Your task to perform on an android device: Search for the best rated headphones on Amazon. Image 0: 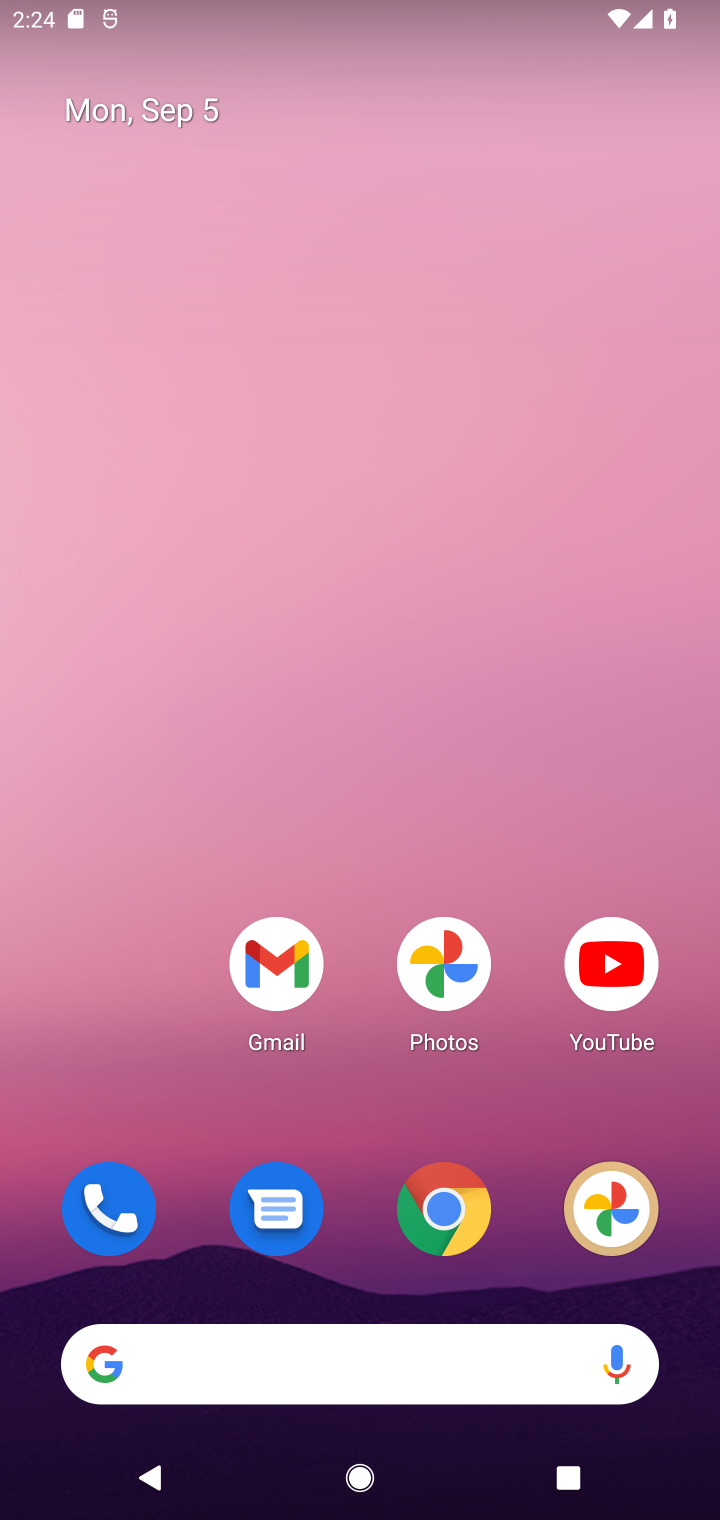
Step 0: click (405, 233)
Your task to perform on an android device: Search for the best rated headphones on Amazon. Image 1: 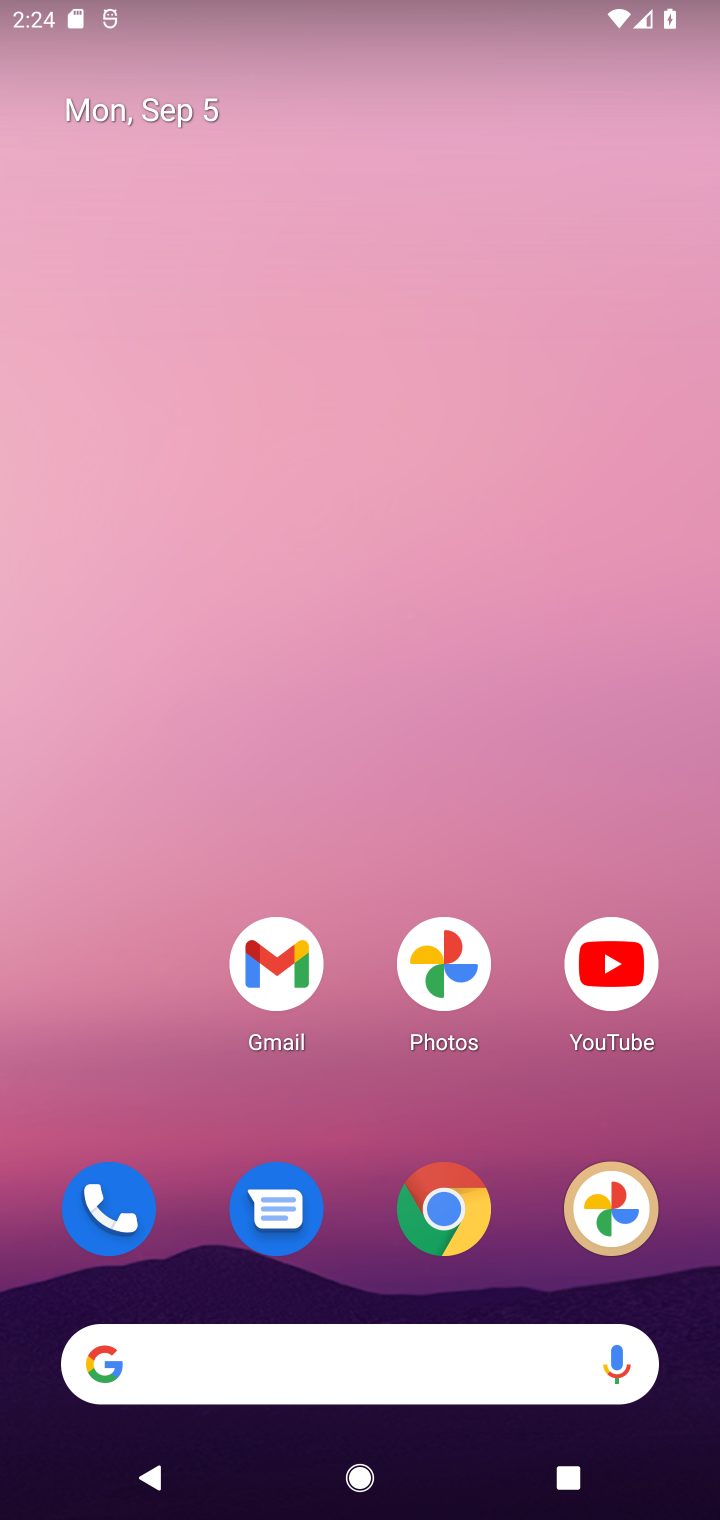
Step 1: drag from (253, 1307) to (390, 319)
Your task to perform on an android device: Search for the best rated headphones on Amazon. Image 2: 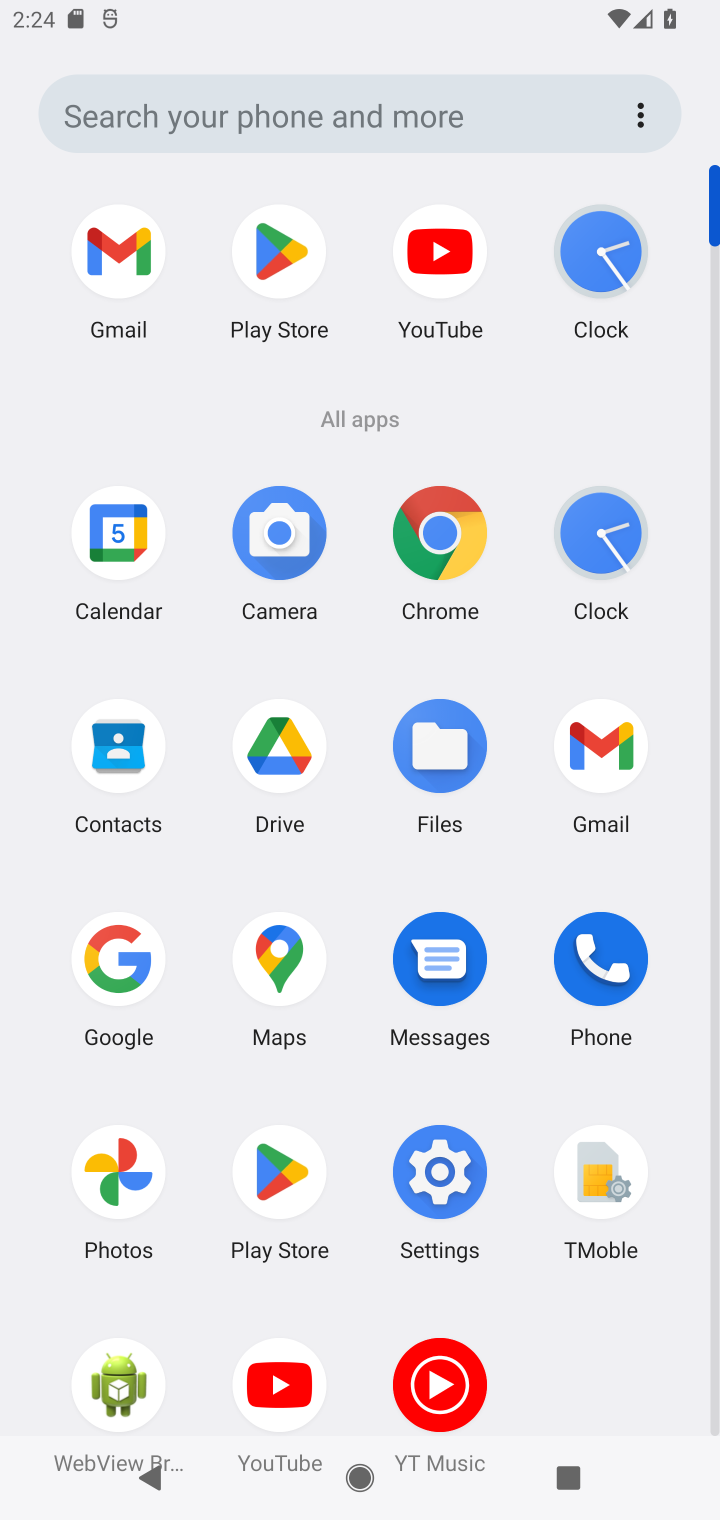
Step 2: click (125, 936)
Your task to perform on an android device: Search for the best rated headphones on Amazon. Image 3: 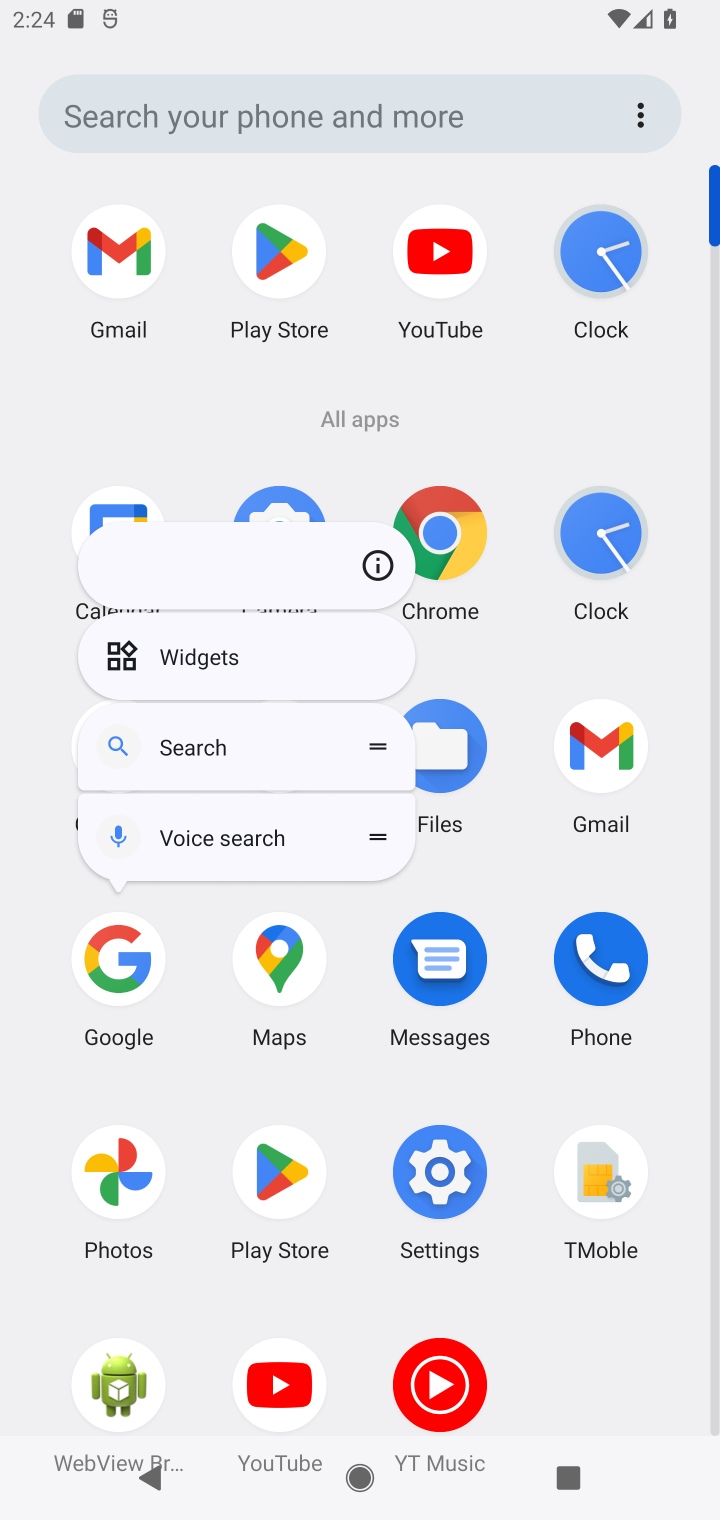
Step 3: click (119, 963)
Your task to perform on an android device: Search for the best rated headphones on Amazon. Image 4: 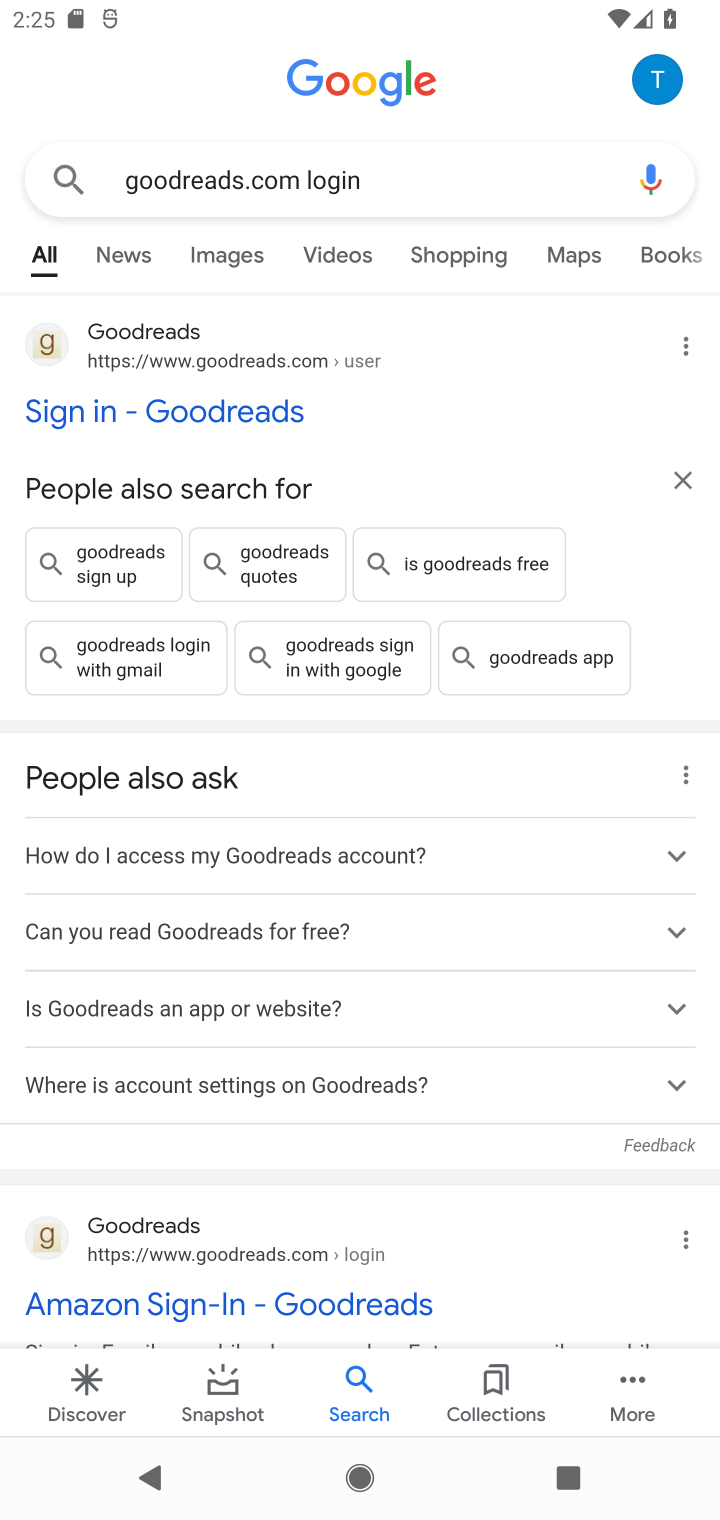
Step 4: click (275, 178)
Your task to perform on an android device: Search for the best rated headphones on Amazon. Image 5: 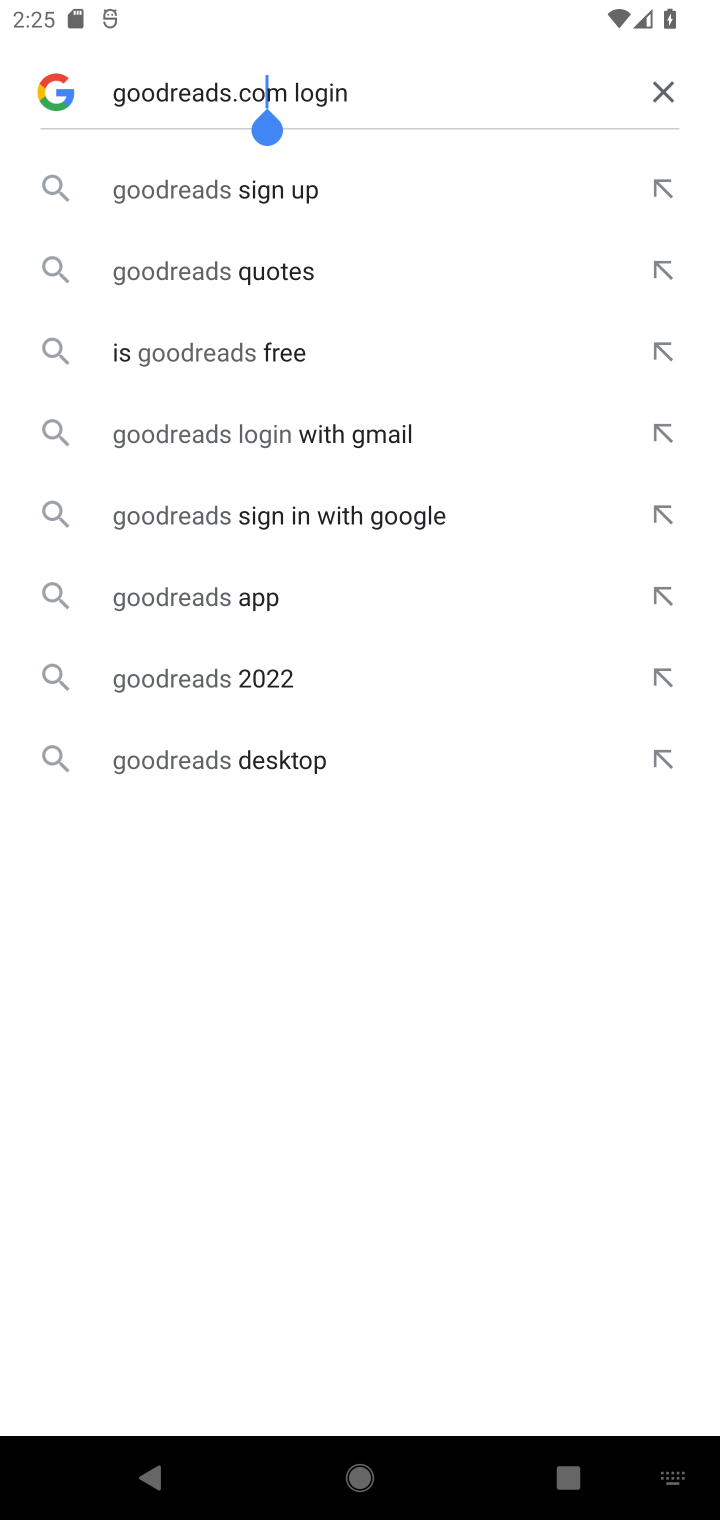
Step 5: click (665, 94)
Your task to perform on an android device: Search for the best rated headphones on Amazon. Image 6: 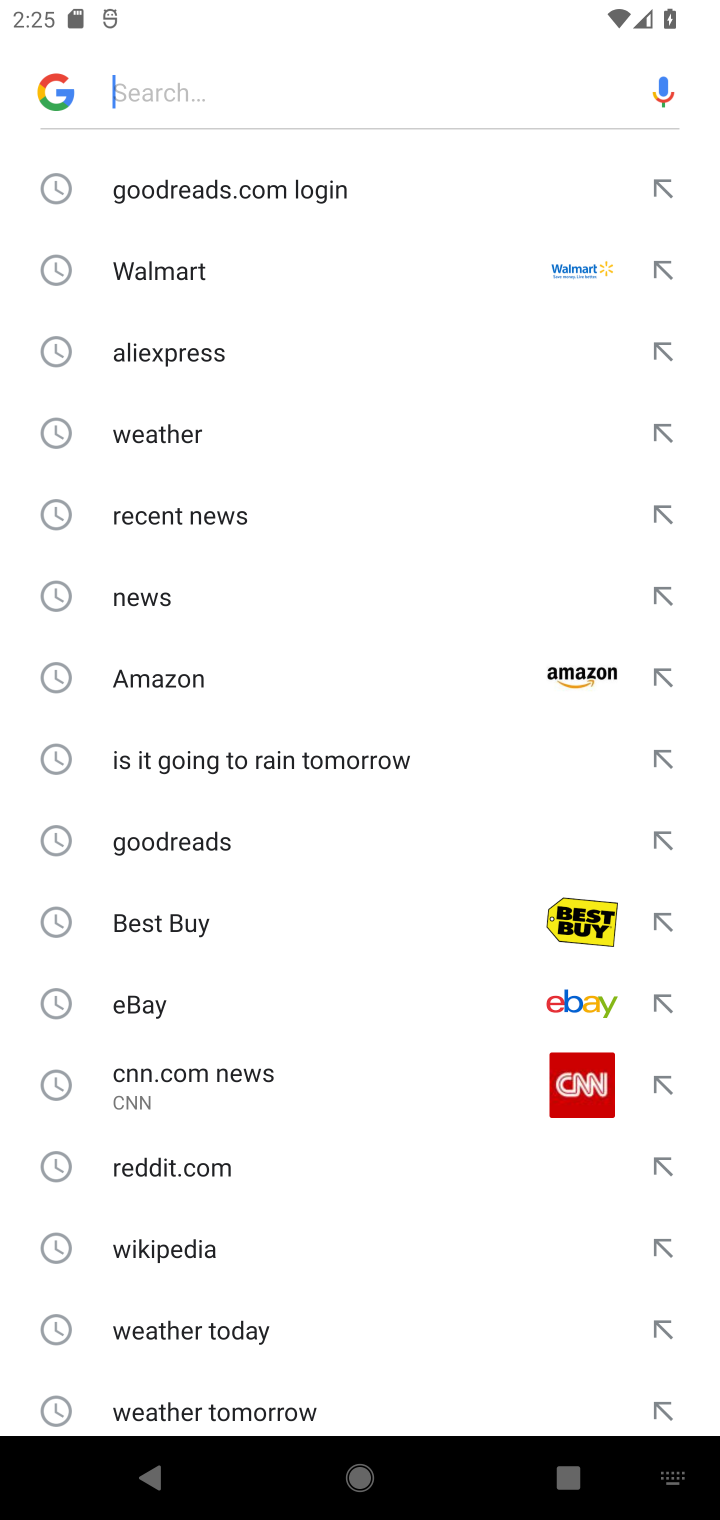
Step 6: type "Amazon"
Your task to perform on an android device: Search for the best rated headphones on Amazon. Image 7: 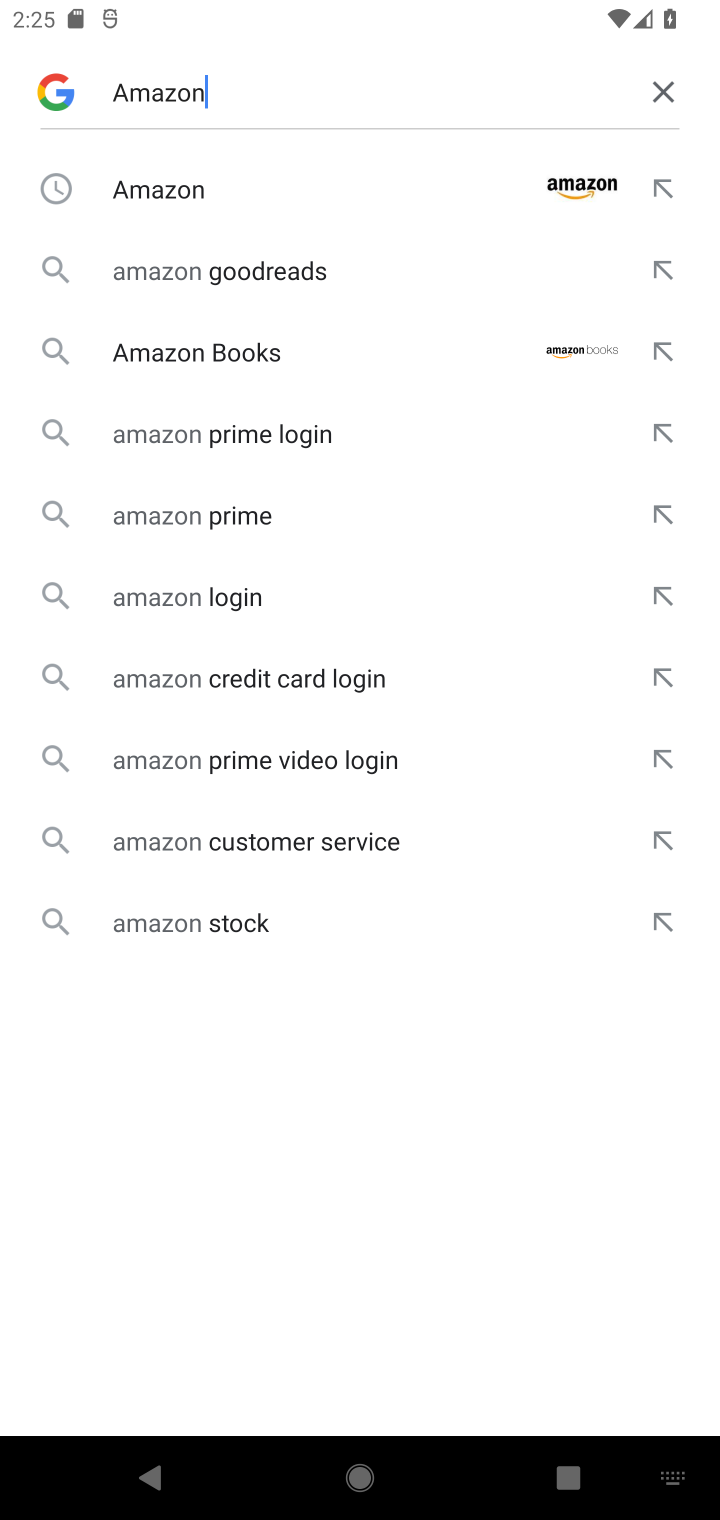
Step 7: click (163, 197)
Your task to perform on an android device: Search for the best rated headphones on Amazon. Image 8: 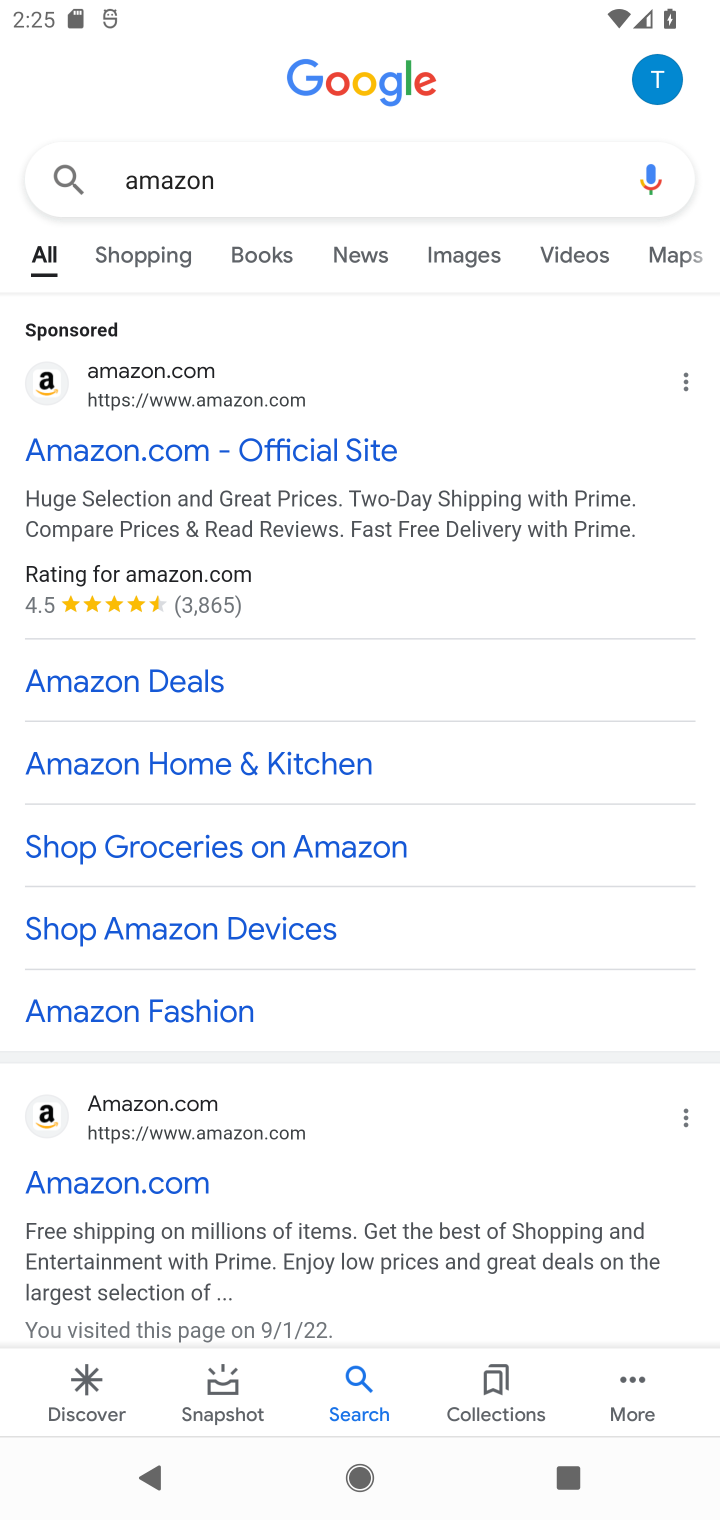
Step 8: click (138, 459)
Your task to perform on an android device: Search for the best rated headphones on Amazon. Image 9: 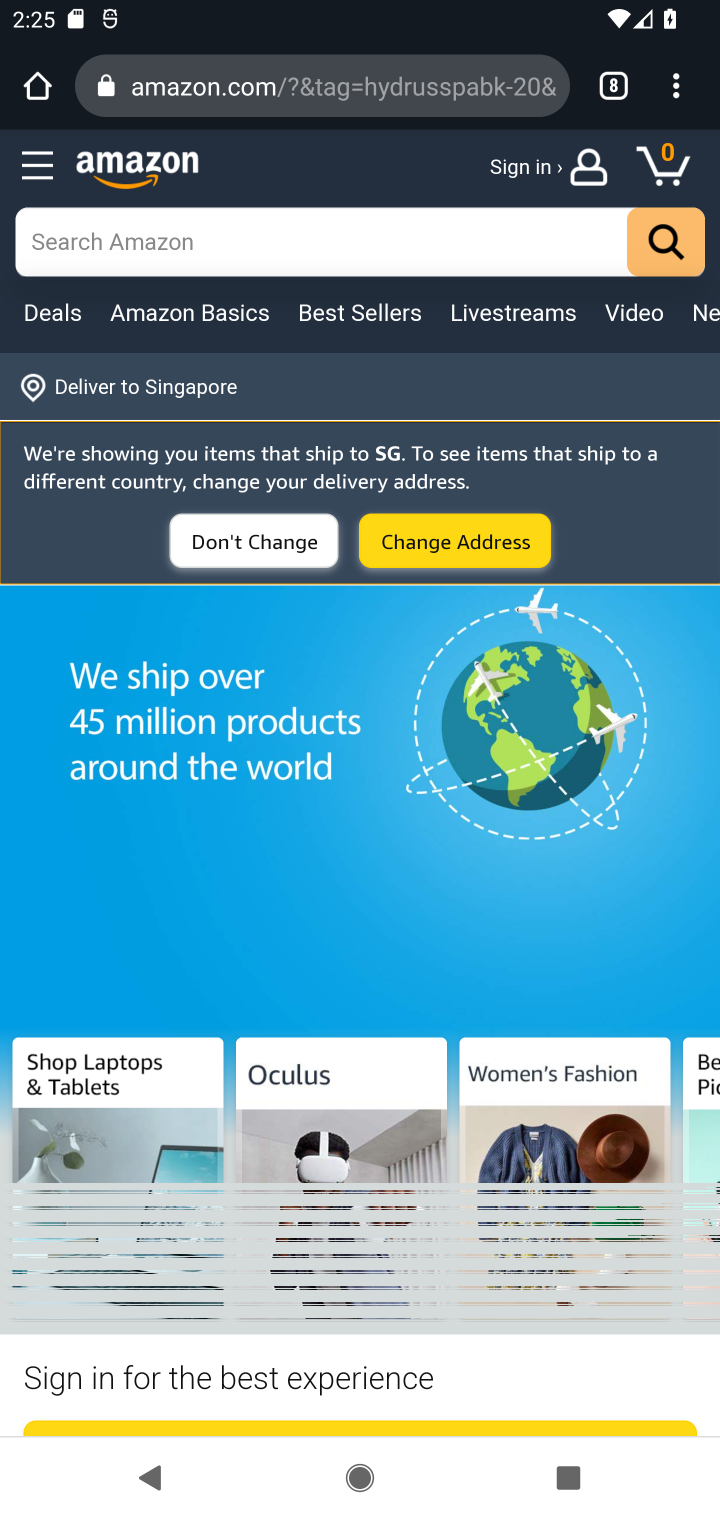
Step 9: click (72, 241)
Your task to perform on an android device: Search for the best rated headphones on Amazon. Image 10: 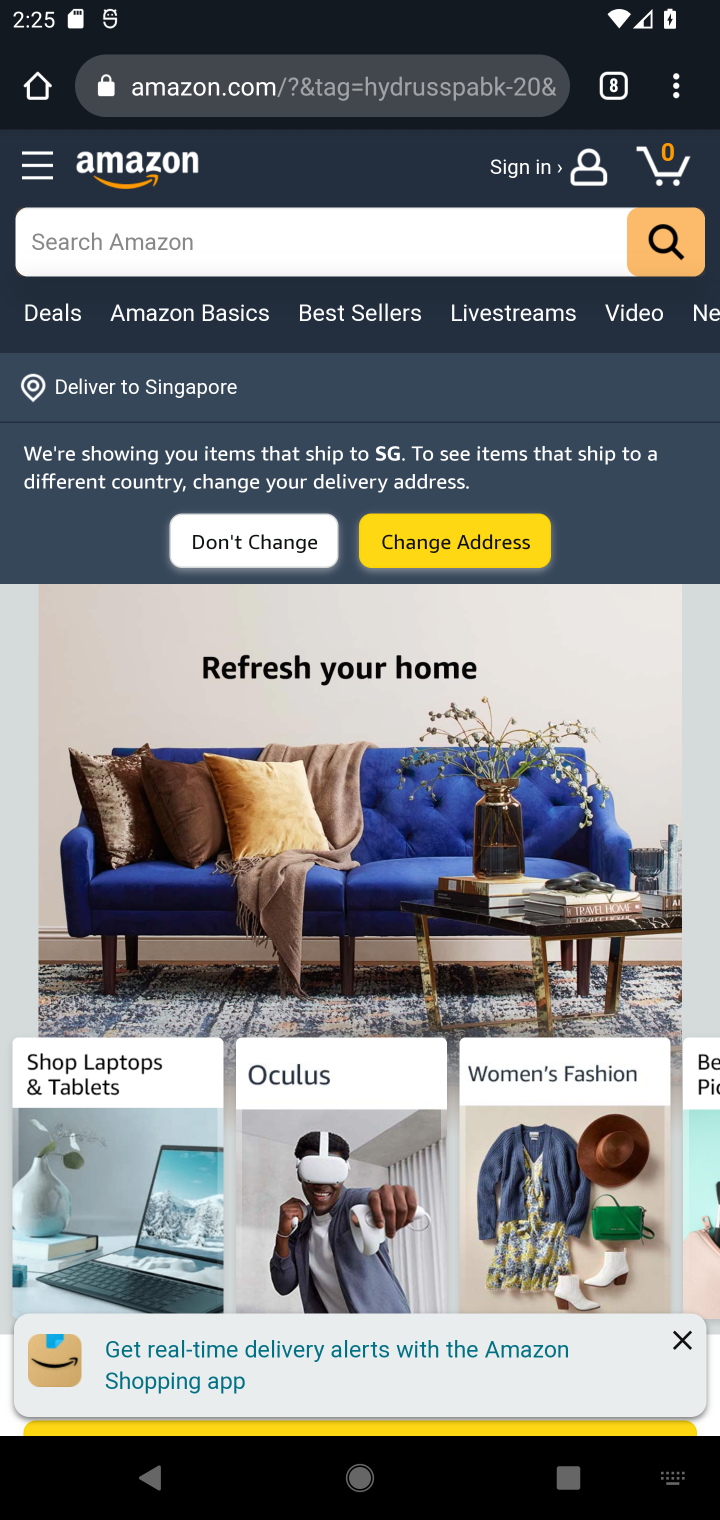
Step 10: type "best rated headphones"
Your task to perform on an android device: Search for the best rated headphones on Amazon. Image 11: 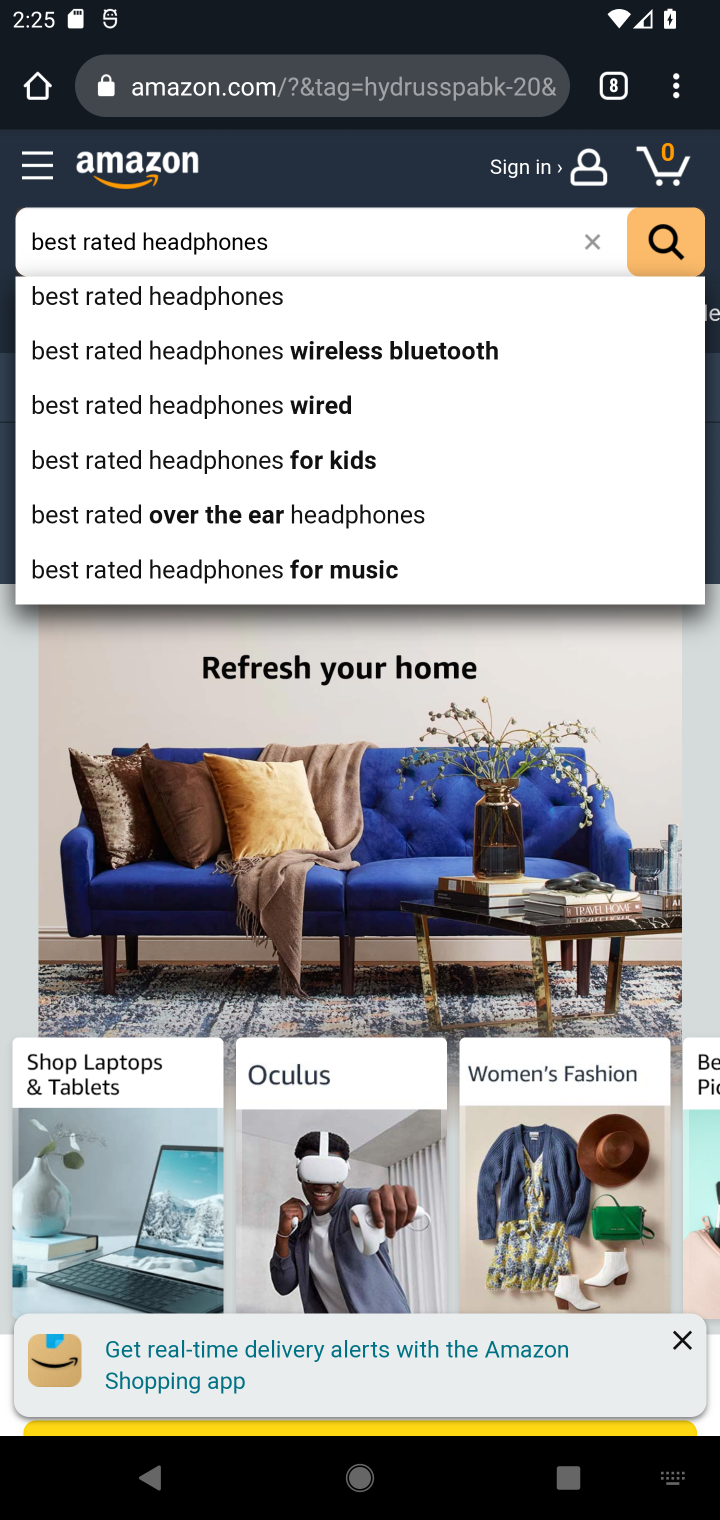
Step 11: click (166, 298)
Your task to perform on an android device: Search for the best rated headphones on Amazon. Image 12: 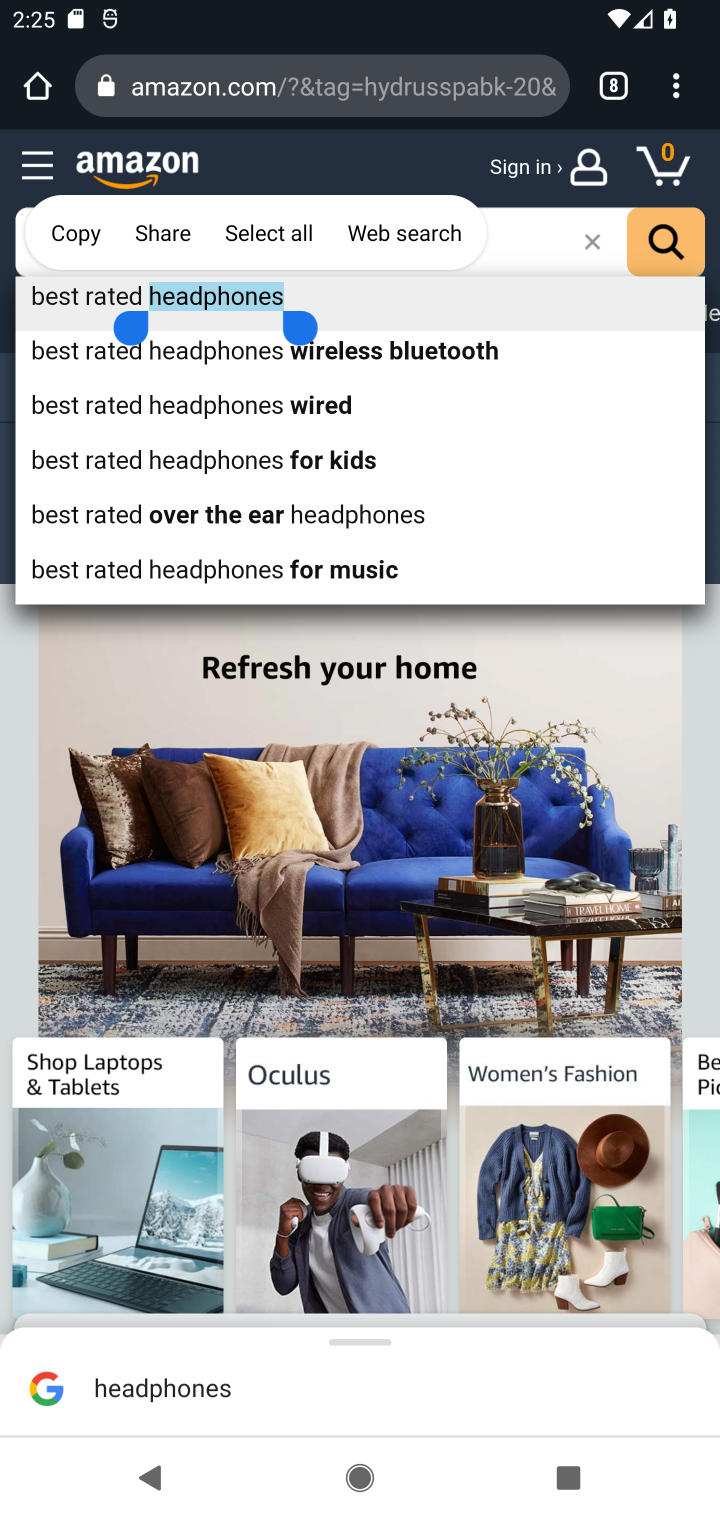
Step 12: click (43, 299)
Your task to perform on an android device: Search for the best rated headphones on Amazon. Image 13: 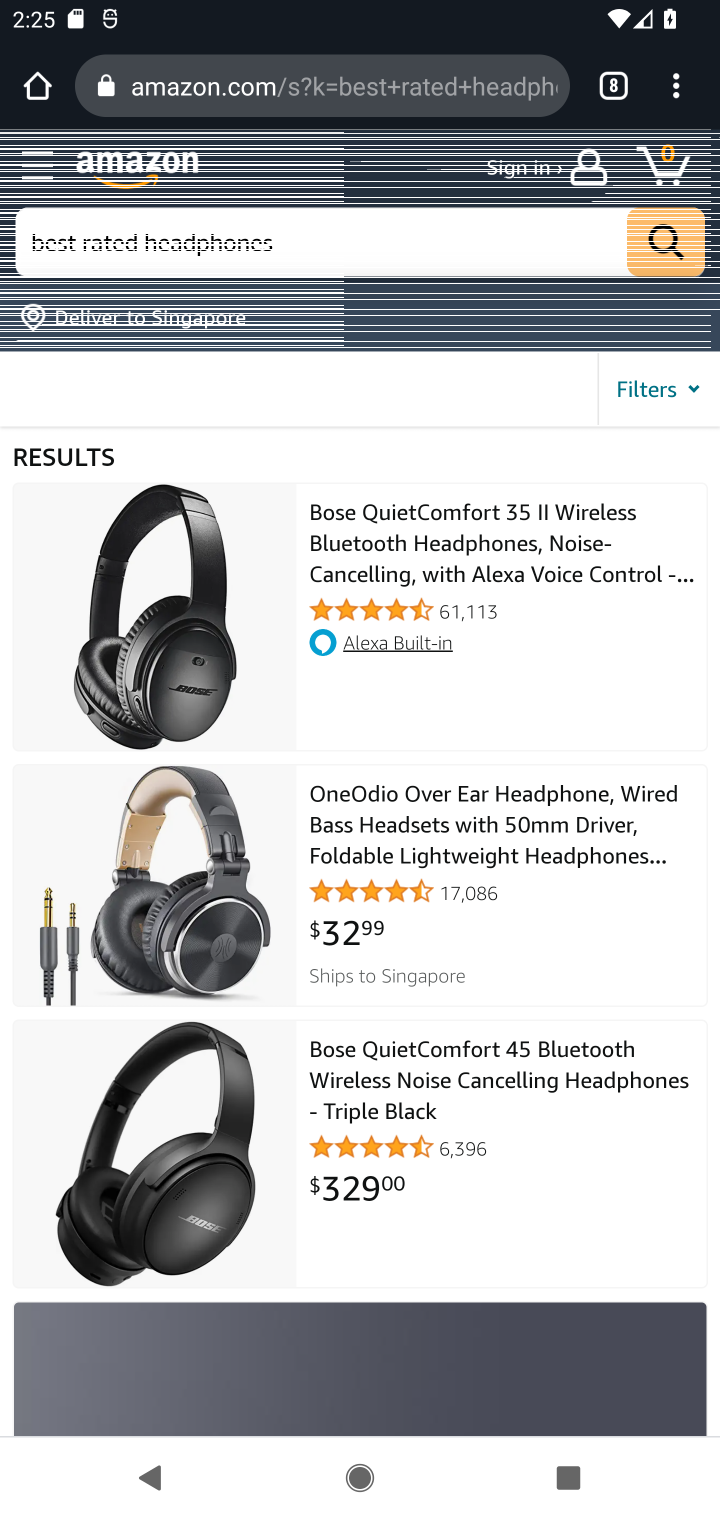
Step 13: click (411, 397)
Your task to perform on an android device: Search for the best rated headphones on Amazon. Image 14: 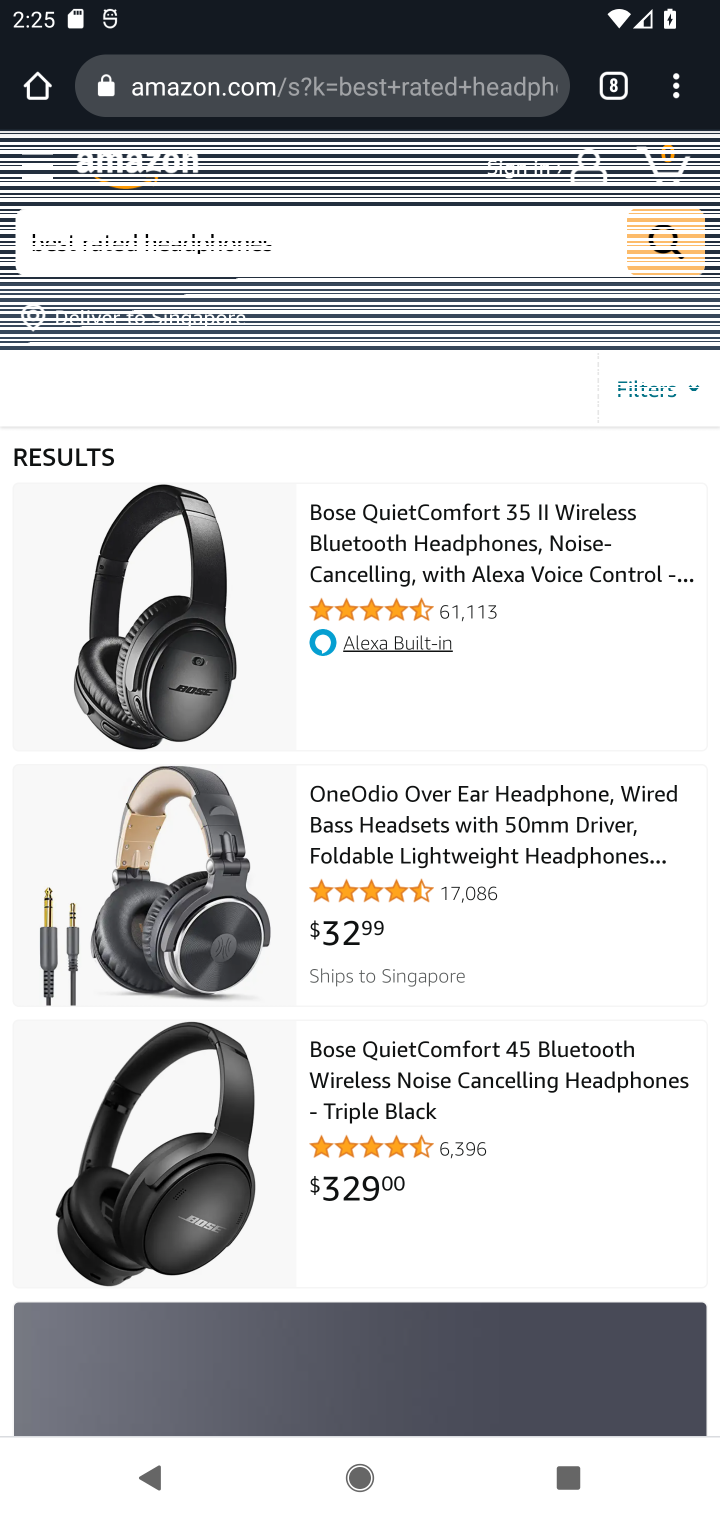
Step 14: task complete